Your task to perform on an android device: Go to Reddit.com Image 0: 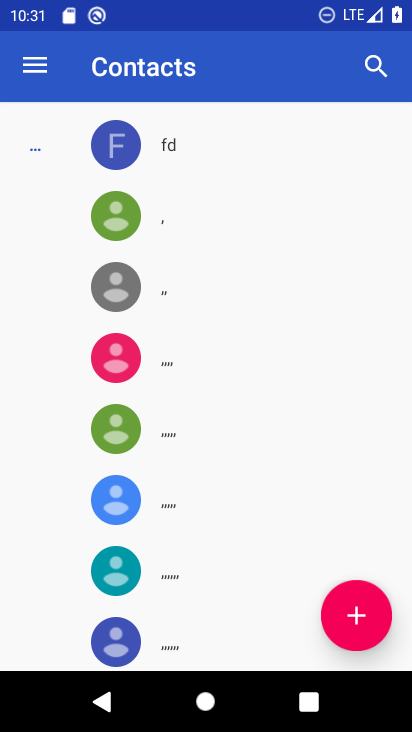
Step 0: press home button
Your task to perform on an android device: Go to Reddit.com Image 1: 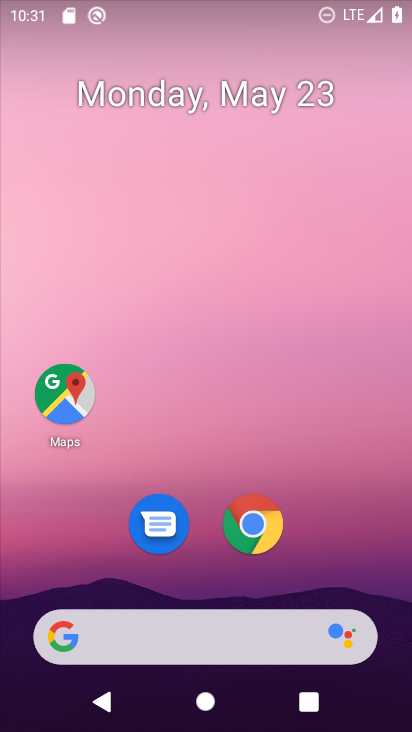
Step 1: click (177, 631)
Your task to perform on an android device: Go to Reddit.com Image 2: 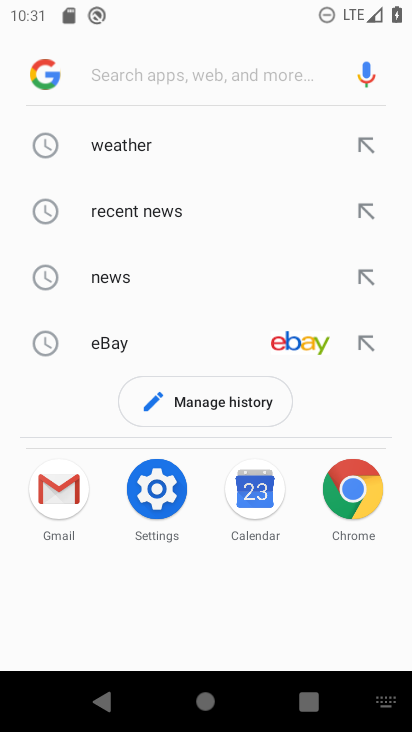
Step 2: type "reddit.com"
Your task to perform on an android device: Go to Reddit.com Image 3: 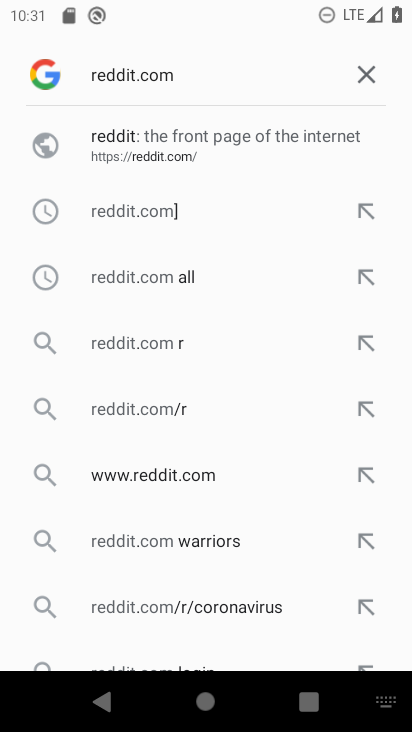
Step 3: click (139, 153)
Your task to perform on an android device: Go to Reddit.com Image 4: 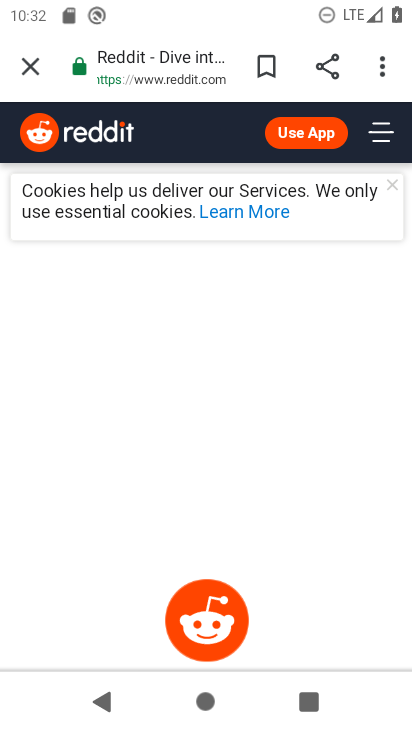
Step 4: task complete